Your task to perform on an android device: turn pop-ups off in chrome Image 0: 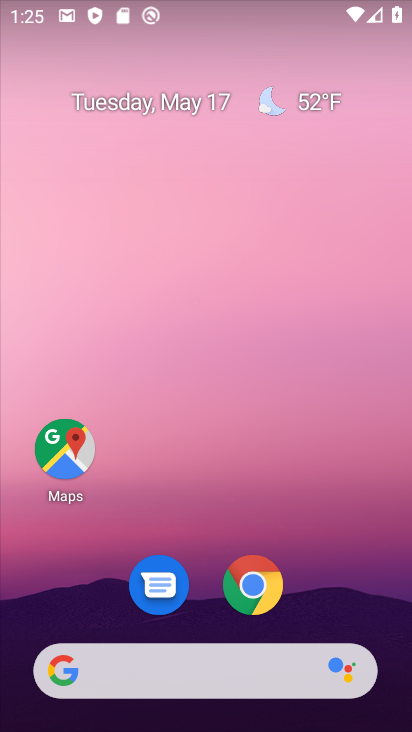
Step 0: click (257, 579)
Your task to perform on an android device: turn pop-ups off in chrome Image 1: 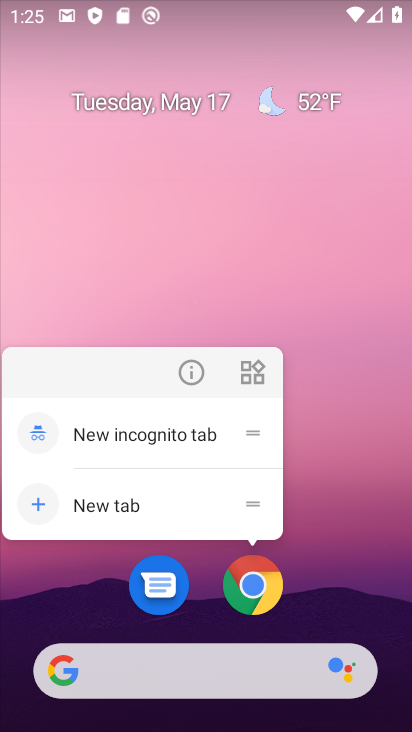
Step 1: click (257, 579)
Your task to perform on an android device: turn pop-ups off in chrome Image 2: 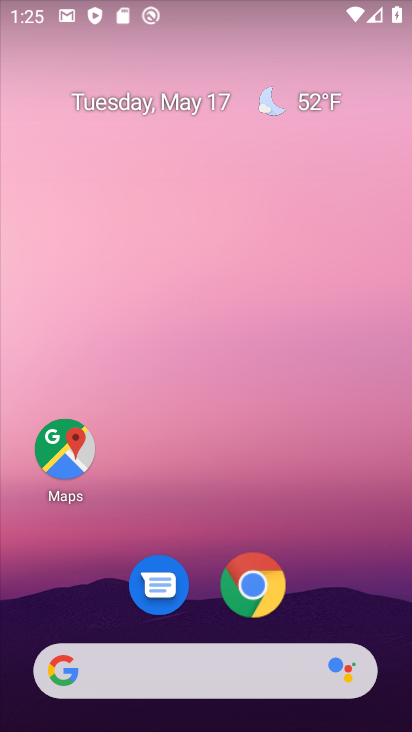
Step 2: click (257, 579)
Your task to perform on an android device: turn pop-ups off in chrome Image 3: 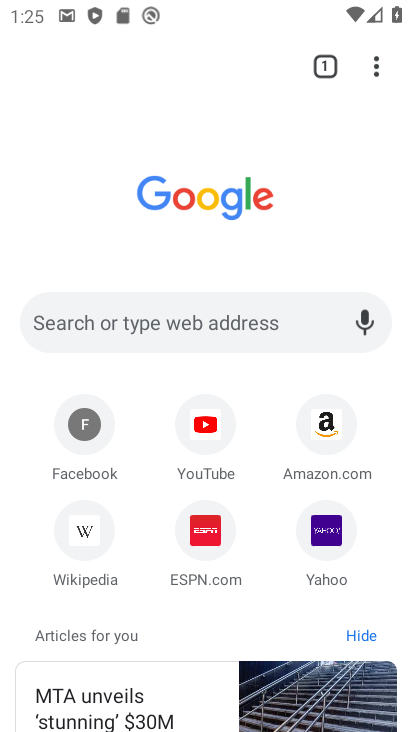
Step 3: click (369, 67)
Your task to perform on an android device: turn pop-ups off in chrome Image 4: 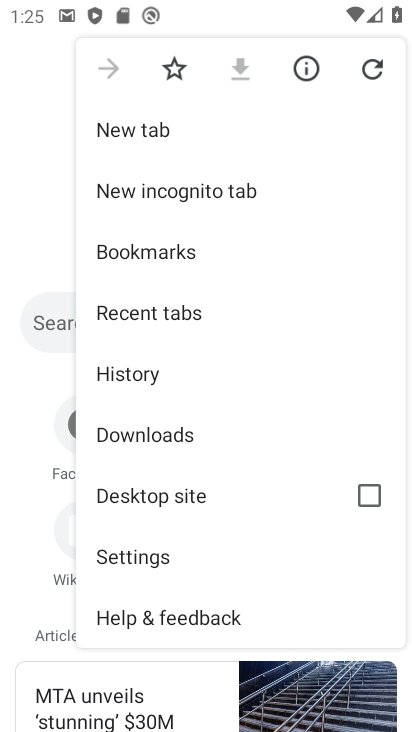
Step 4: click (207, 552)
Your task to perform on an android device: turn pop-ups off in chrome Image 5: 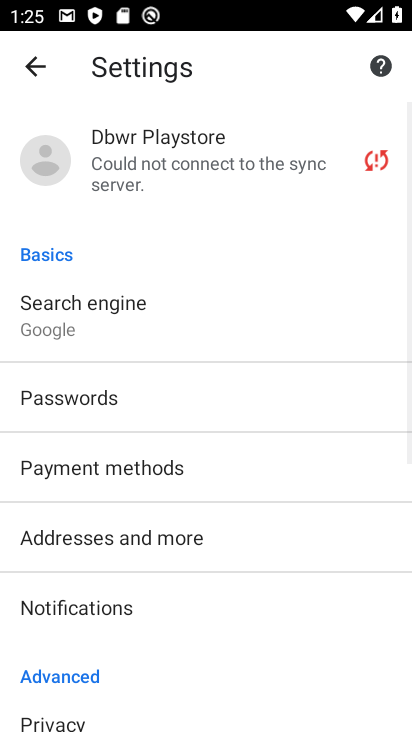
Step 5: drag from (209, 603) to (267, 326)
Your task to perform on an android device: turn pop-ups off in chrome Image 6: 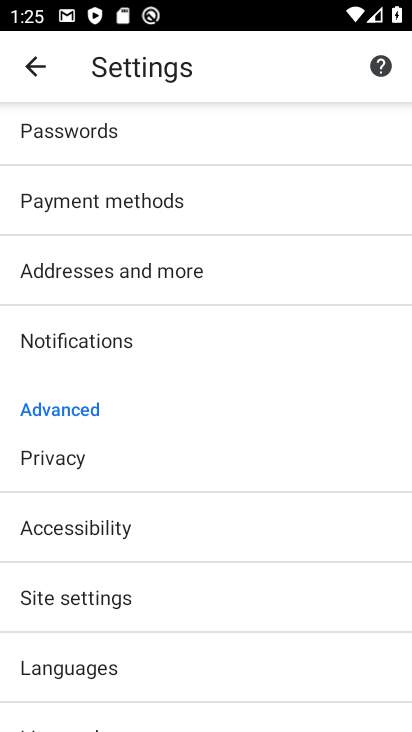
Step 6: click (182, 600)
Your task to perform on an android device: turn pop-ups off in chrome Image 7: 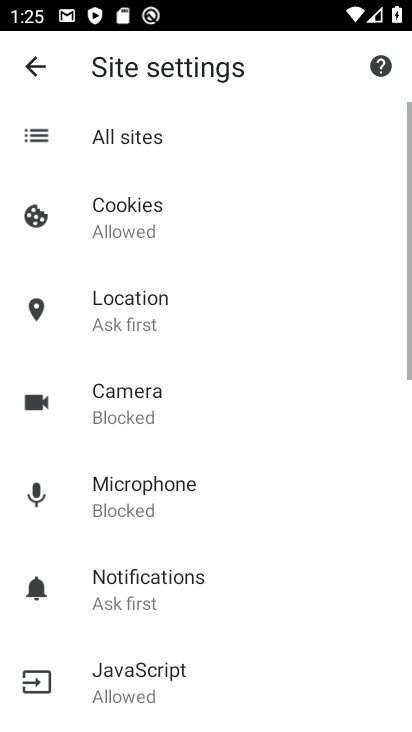
Step 7: drag from (268, 610) to (343, 253)
Your task to perform on an android device: turn pop-ups off in chrome Image 8: 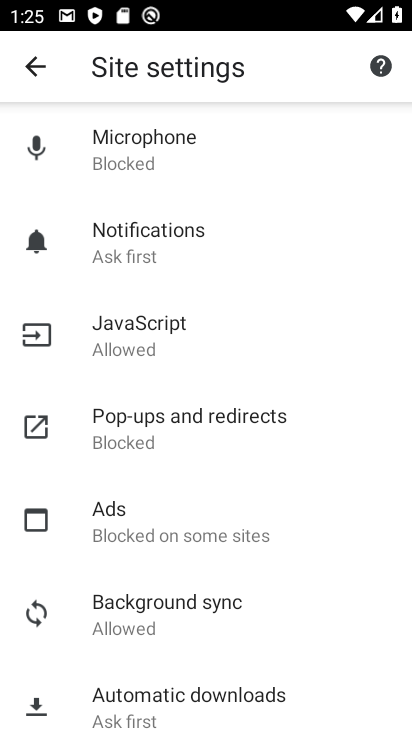
Step 8: click (271, 433)
Your task to perform on an android device: turn pop-ups off in chrome Image 9: 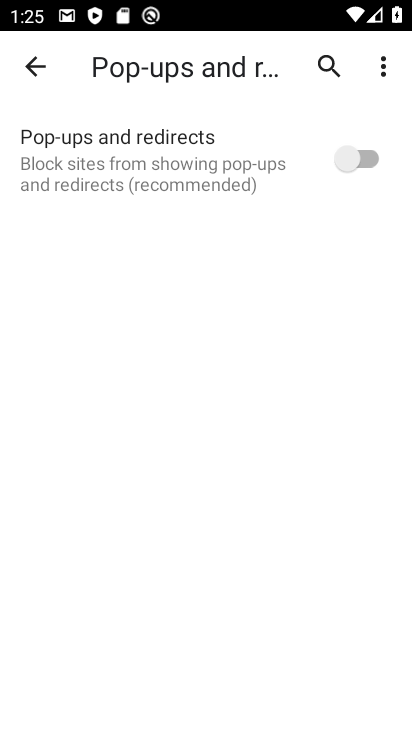
Step 9: task complete